Your task to perform on an android device: Go to Reddit.com Image 0: 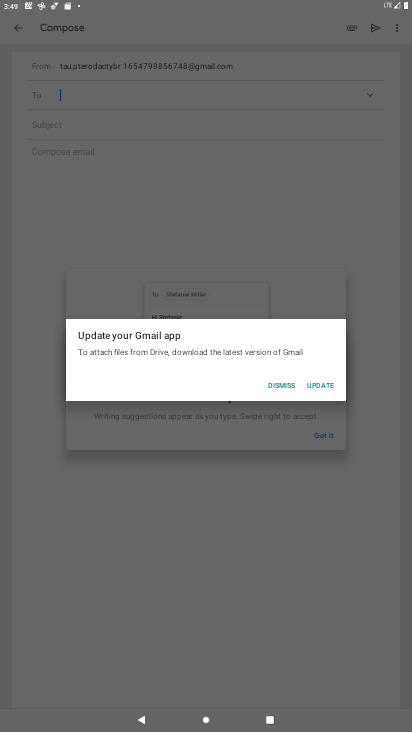
Step 0: press home button
Your task to perform on an android device: Go to Reddit.com Image 1: 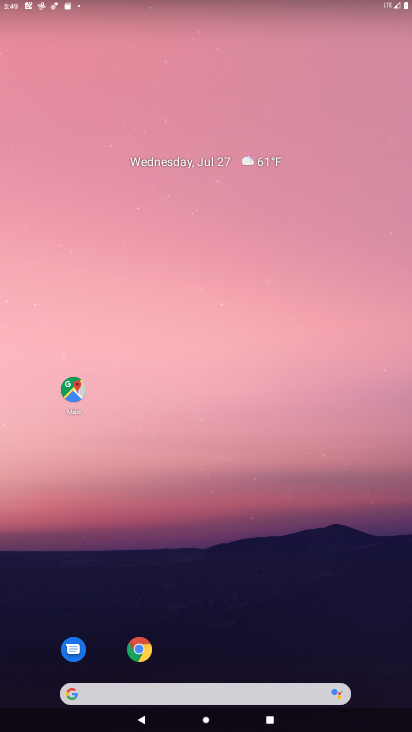
Step 1: click (137, 658)
Your task to perform on an android device: Go to Reddit.com Image 2: 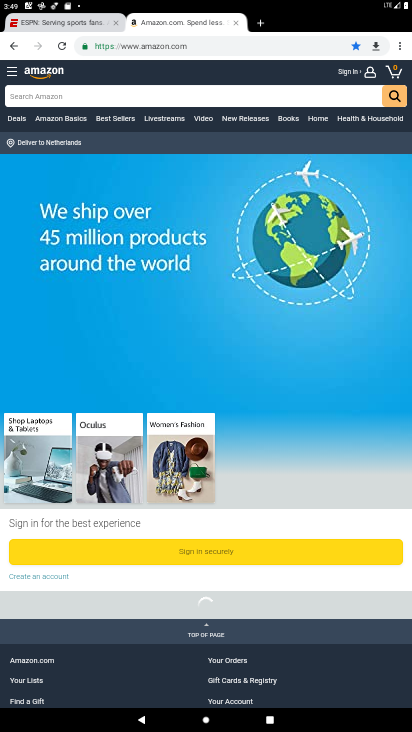
Step 2: click (108, 48)
Your task to perform on an android device: Go to Reddit.com Image 3: 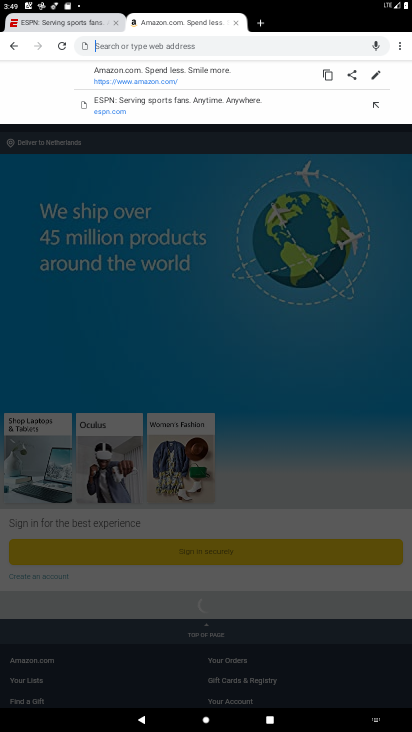
Step 3: type "www.reddit.com"
Your task to perform on an android device: Go to Reddit.com Image 4: 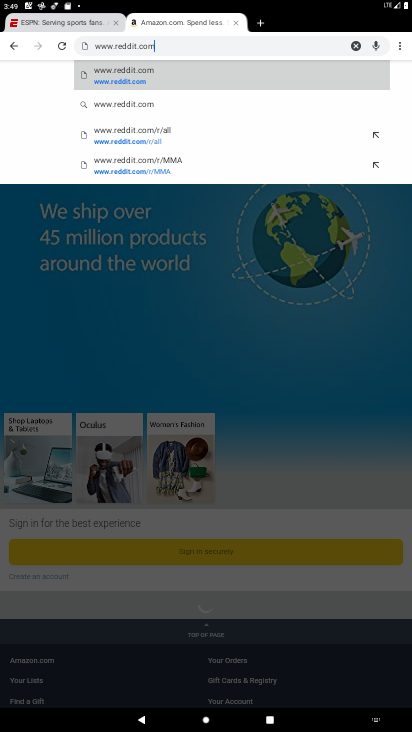
Step 4: click (134, 81)
Your task to perform on an android device: Go to Reddit.com Image 5: 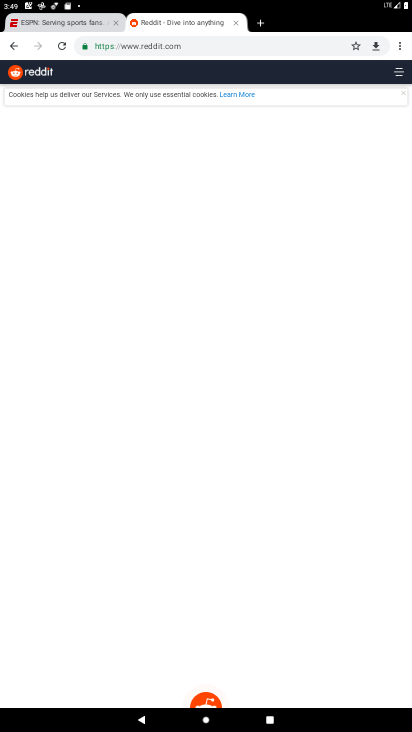
Step 5: task complete